Your task to perform on an android device: Go to notification settings Image 0: 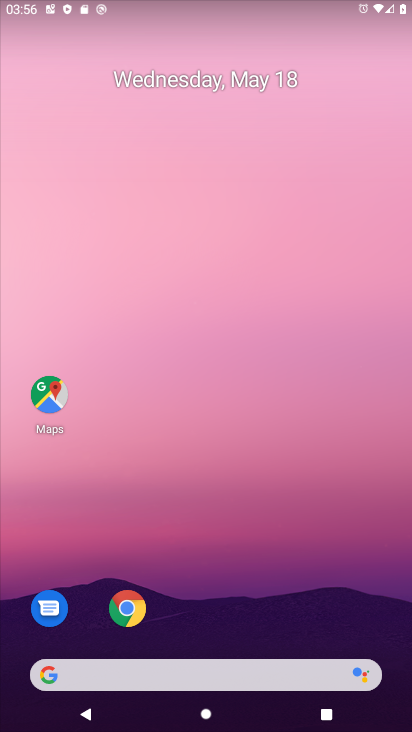
Step 0: drag from (201, 635) to (199, 34)
Your task to perform on an android device: Go to notification settings Image 1: 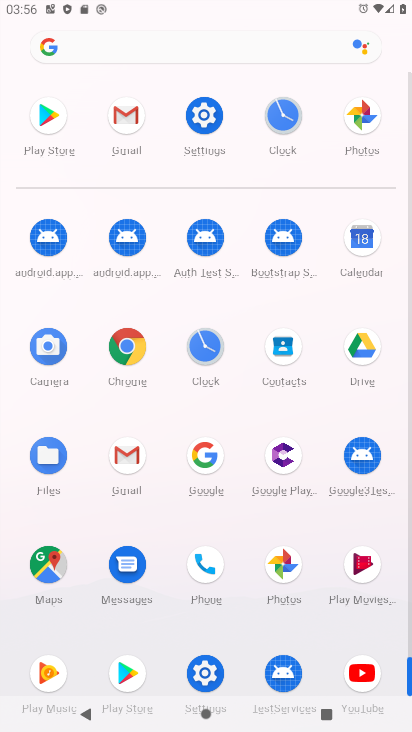
Step 1: click (195, 93)
Your task to perform on an android device: Go to notification settings Image 2: 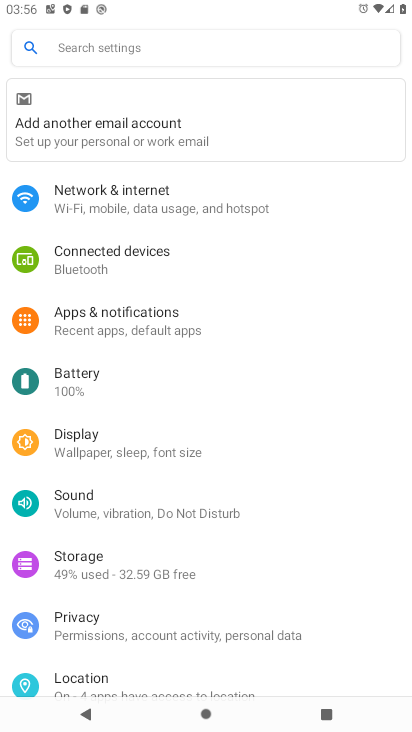
Step 2: drag from (135, 657) to (187, 235)
Your task to perform on an android device: Go to notification settings Image 3: 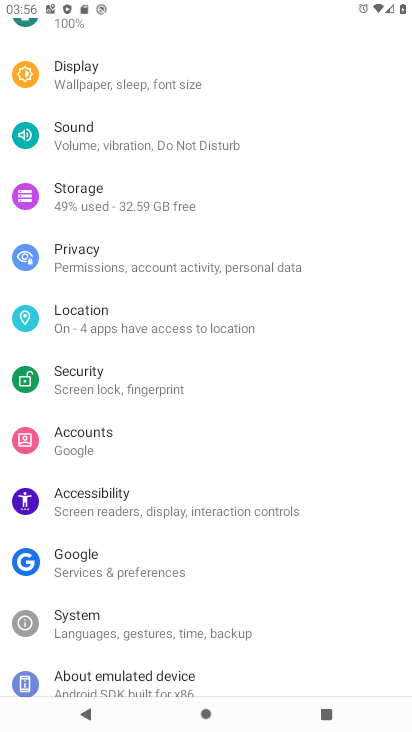
Step 3: drag from (172, 127) to (190, 716)
Your task to perform on an android device: Go to notification settings Image 4: 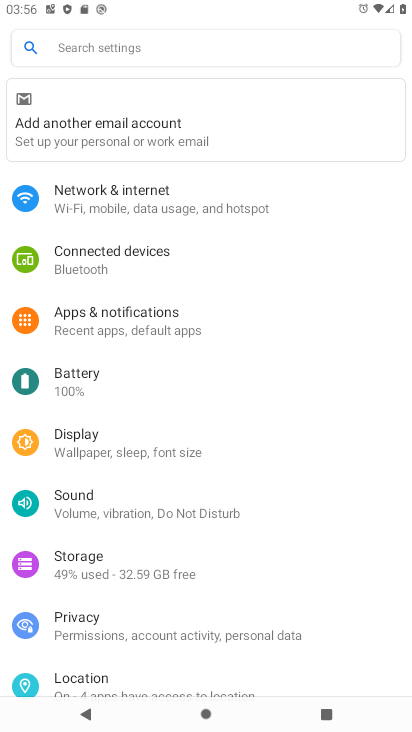
Step 4: click (104, 316)
Your task to perform on an android device: Go to notification settings Image 5: 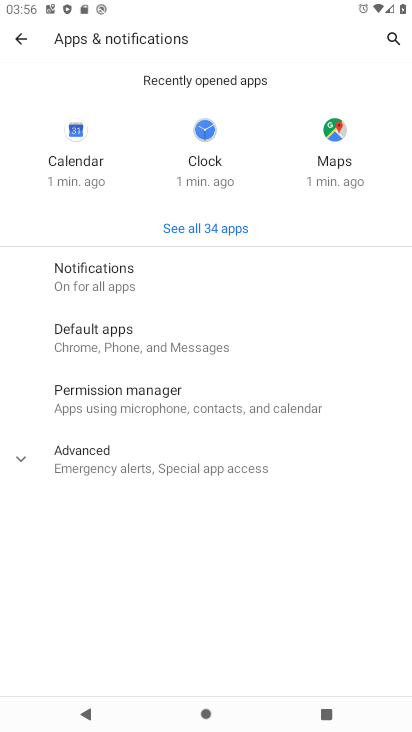
Step 5: task complete